Your task to perform on an android device: Open settings Image 0: 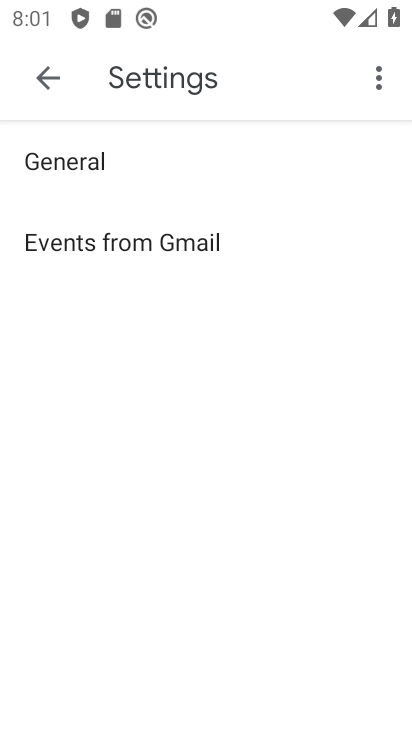
Step 0: click (59, 69)
Your task to perform on an android device: Open settings Image 1: 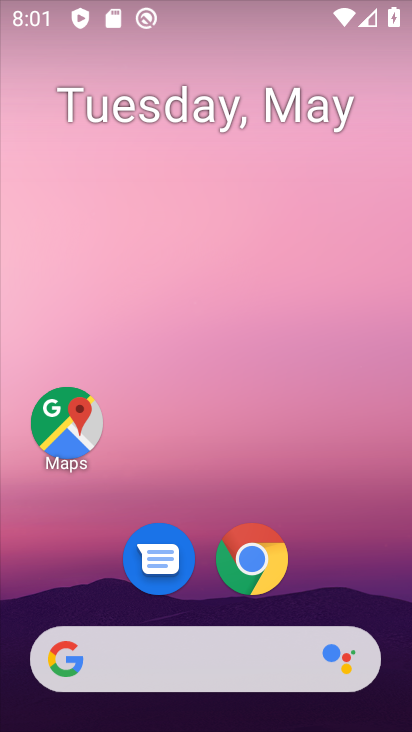
Step 1: drag from (193, 542) to (350, 6)
Your task to perform on an android device: Open settings Image 2: 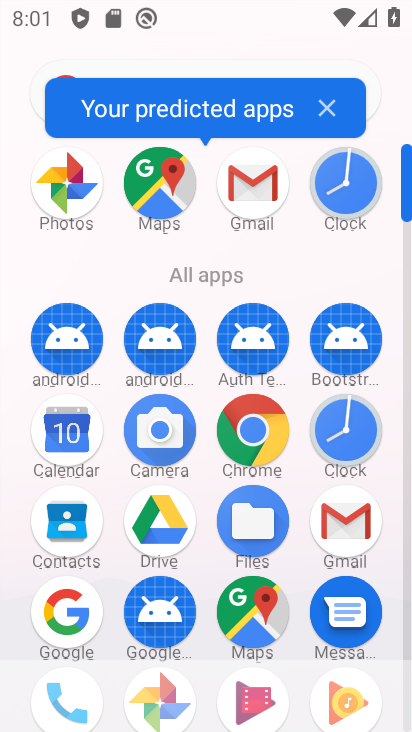
Step 2: drag from (232, 494) to (350, 91)
Your task to perform on an android device: Open settings Image 3: 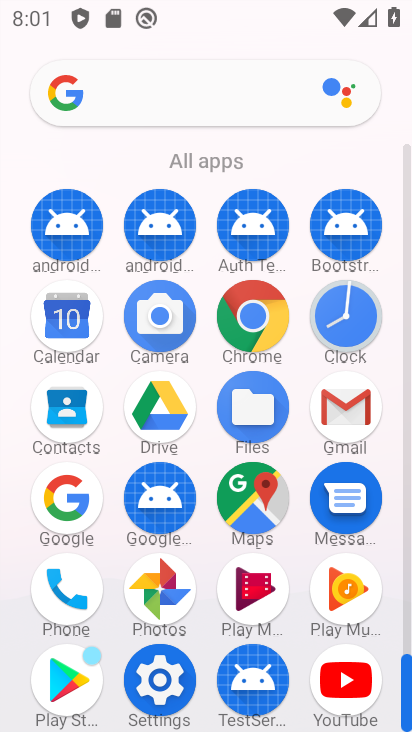
Step 3: click (174, 679)
Your task to perform on an android device: Open settings Image 4: 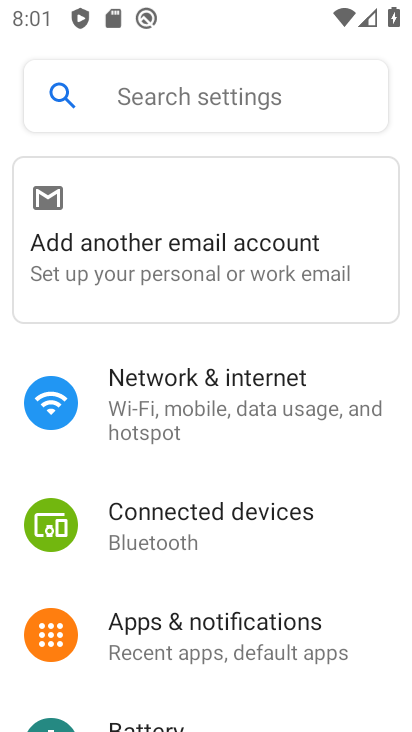
Step 4: task complete